Your task to perform on an android device: check google app version Image 0: 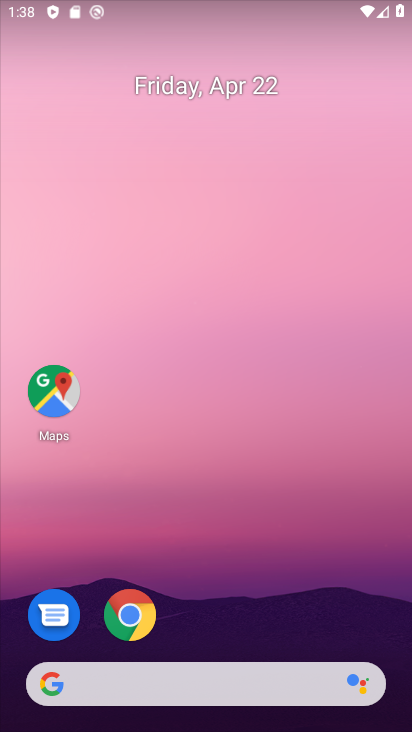
Step 0: drag from (176, 665) to (294, 146)
Your task to perform on an android device: check google app version Image 1: 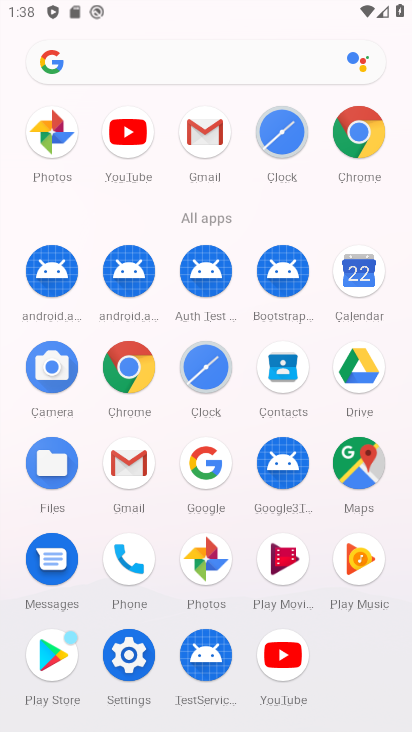
Step 1: click (121, 661)
Your task to perform on an android device: check google app version Image 2: 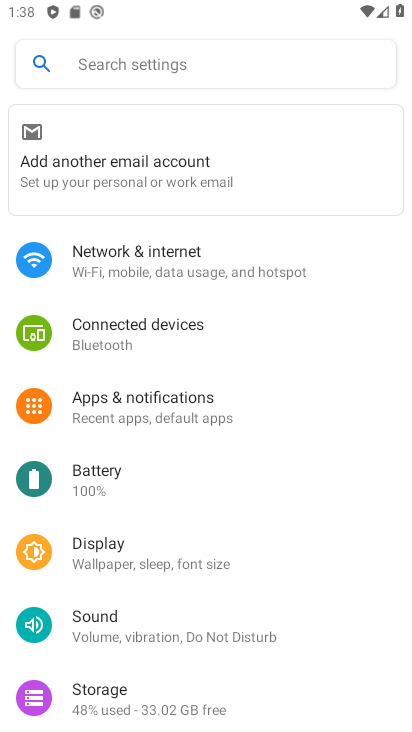
Step 2: click (153, 415)
Your task to perform on an android device: check google app version Image 3: 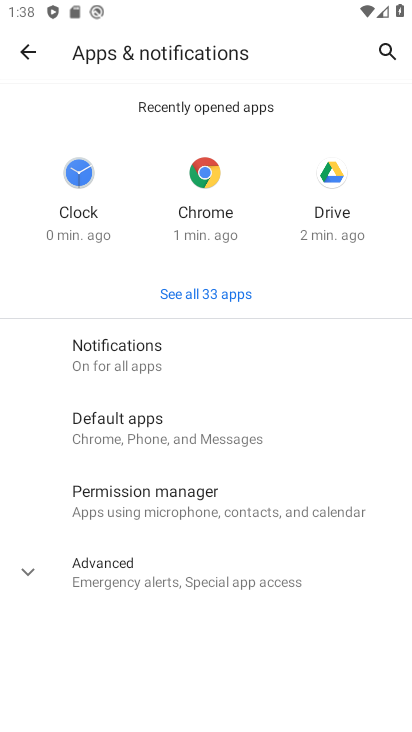
Step 3: click (231, 297)
Your task to perform on an android device: check google app version Image 4: 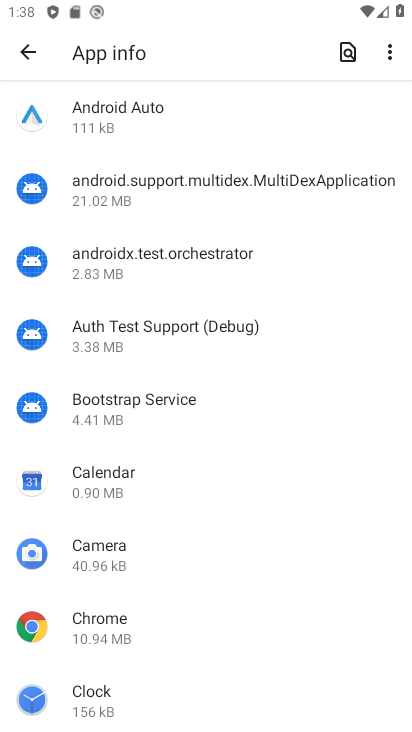
Step 4: drag from (162, 684) to (336, 151)
Your task to perform on an android device: check google app version Image 5: 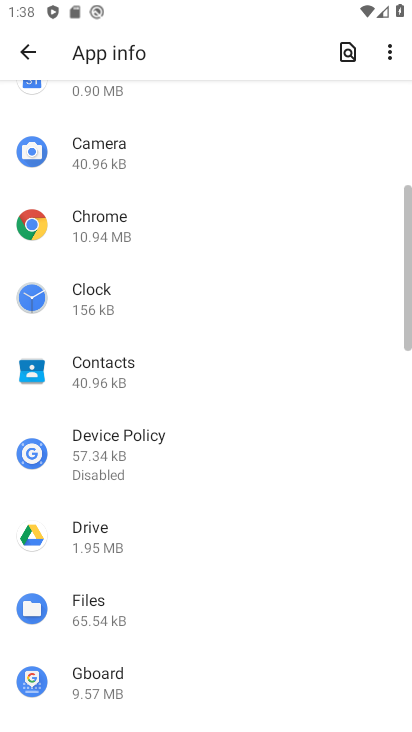
Step 5: drag from (202, 577) to (339, 173)
Your task to perform on an android device: check google app version Image 6: 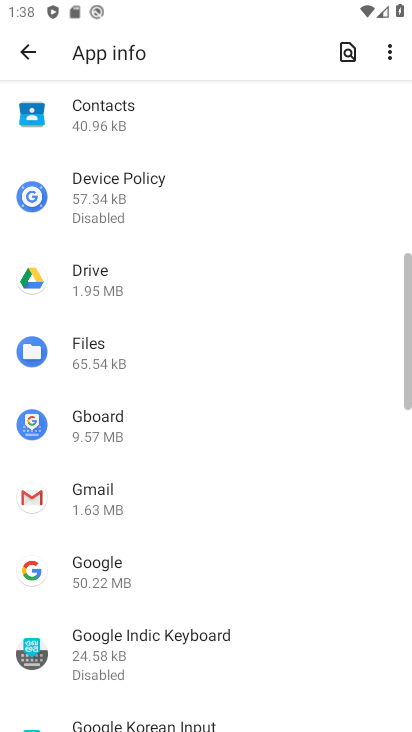
Step 6: click (133, 566)
Your task to perform on an android device: check google app version Image 7: 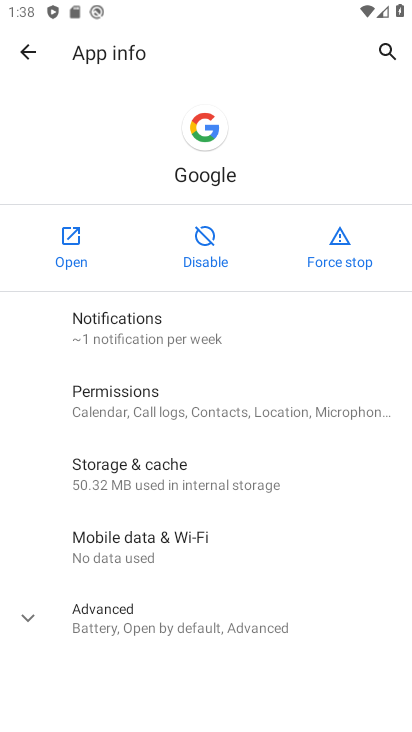
Step 7: click (168, 629)
Your task to perform on an android device: check google app version Image 8: 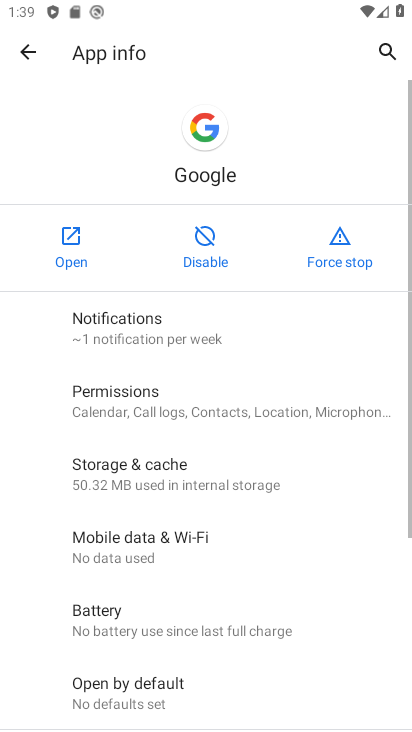
Step 8: task complete